Your task to perform on an android device: turn on translation in the chrome app Image 0: 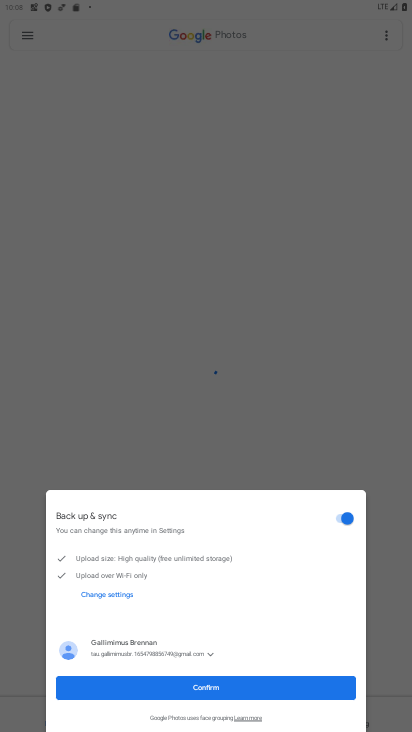
Step 0: press home button
Your task to perform on an android device: turn on translation in the chrome app Image 1: 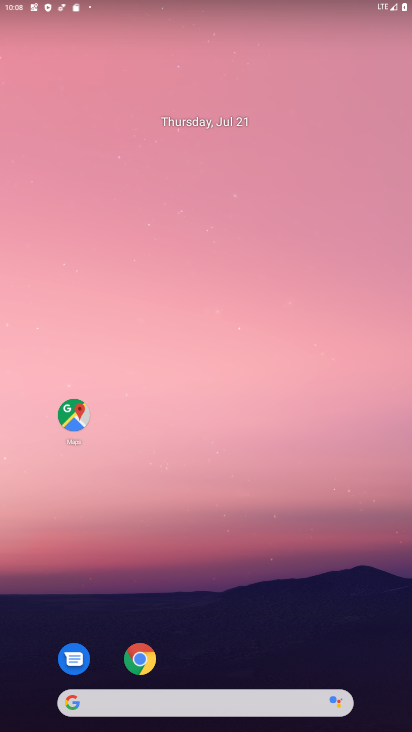
Step 1: drag from (294, 629) to (155, 129)
Your task to perform on an android device: turn on translation in the chrome app Image 2: 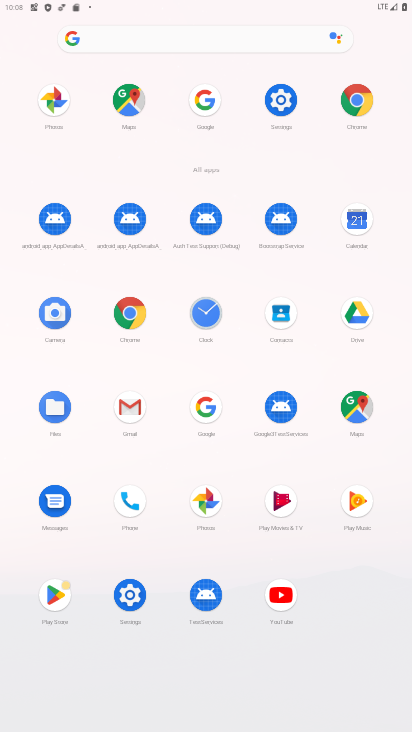
Step 2: click (126, 306)
Your task to perform on an android device: turn on translation in the chrome app Image 3: 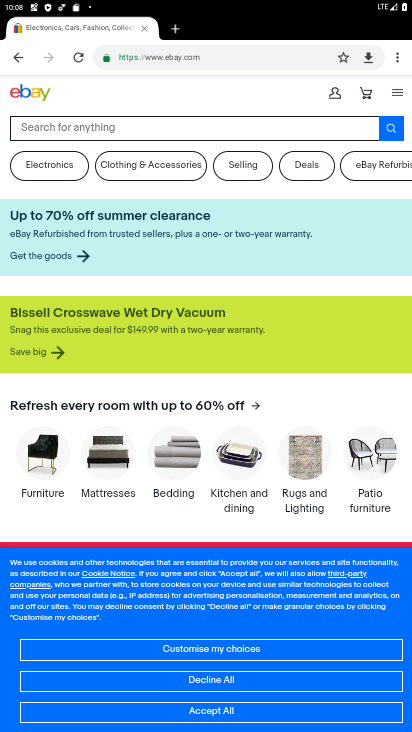
Step 3: drag from (396, 52) to (278, 387)
Your task to perform on an android device: turn on translation in the chrome app Image 4: 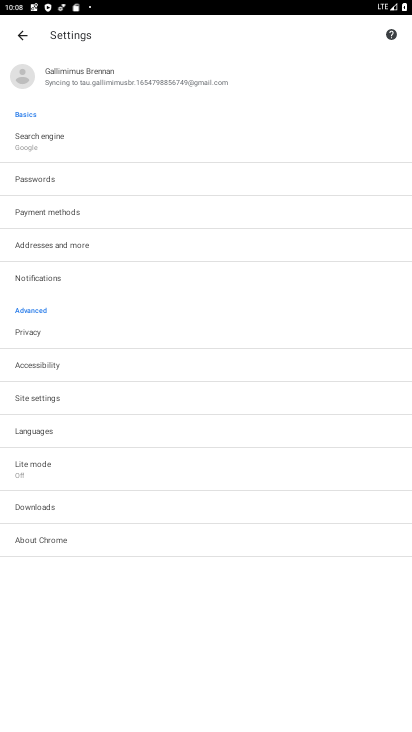
Step 4: click (44, 429)
Your task to perform on an android device: turn on translation in the chrome app Image 5: 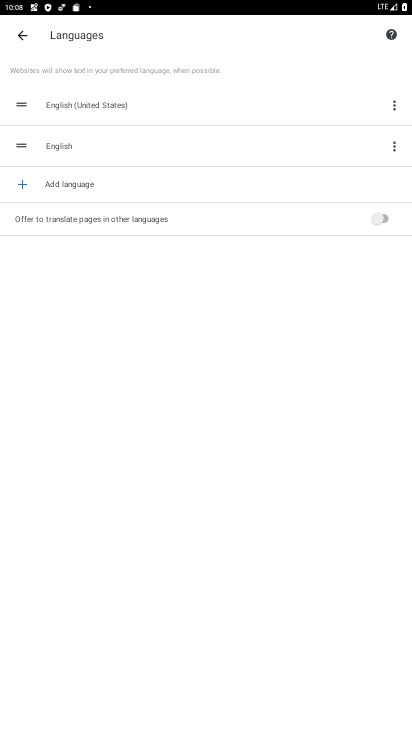
Step 5: click (377, 215)
Your task to perform on an android device: turn on translation in the chrome app Image 6: 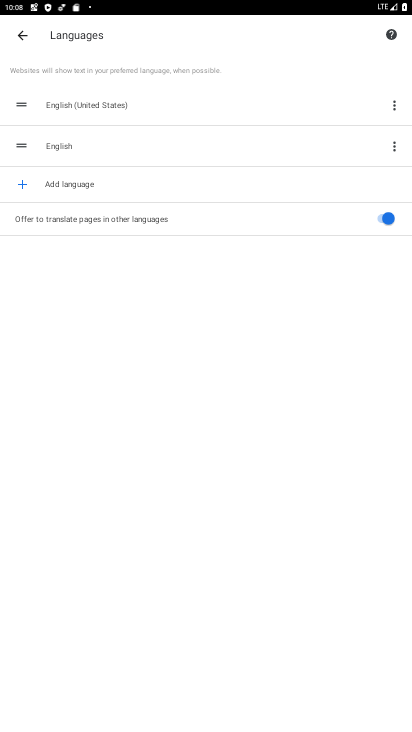
Step 6: task complete